Your task to perform on an android device: delete location history Image 0: 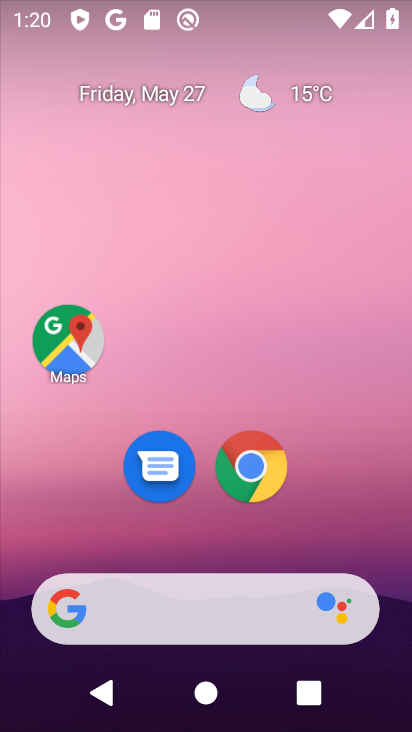
Step 0: click (268, 504)
Your task to perform on an android device: delete location history Image 1: 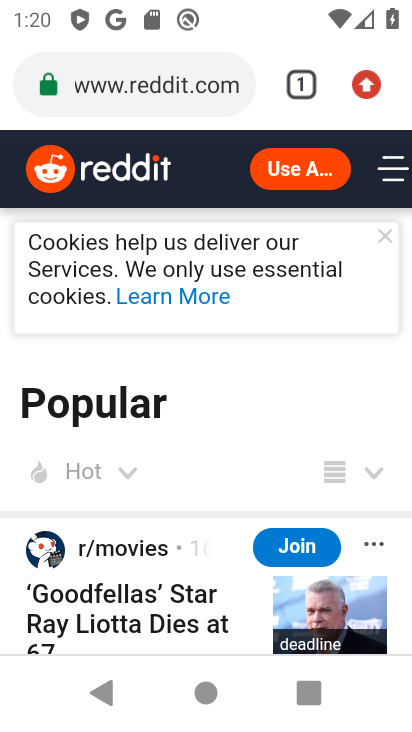
Step 1: press home button
Your task to perform on an android device: delete location history Image 2: 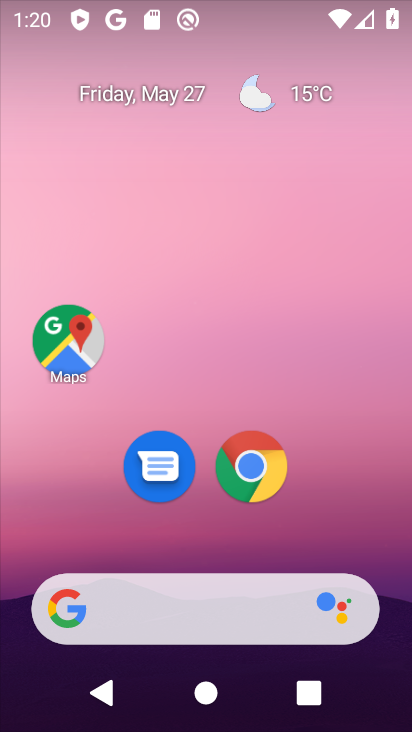
Step 2: drag from (84, 557) to (207, 75)
Your task to perform on an android device: delete location history Image 3: 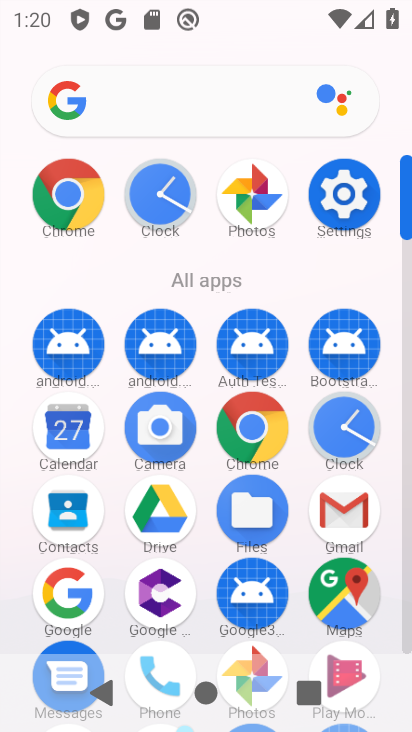
Step 3: drag from (168, 551) to (259, 319)
Your task to perform on an android device: delete location history Image 4: 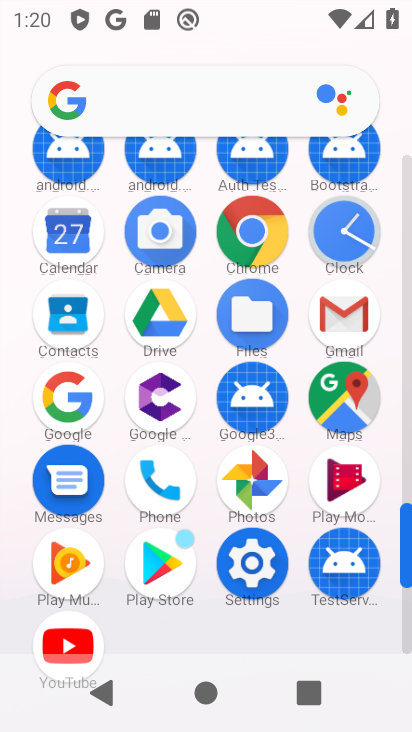
Step 4: click (253, 572)
Your task to perform on an android device: delete location history Image 5: 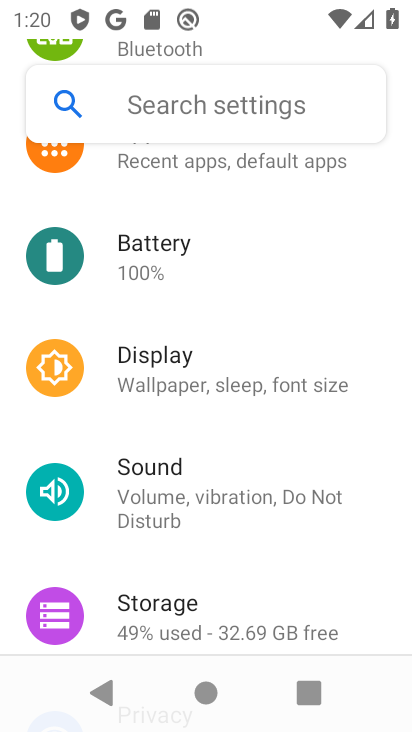
Step 5: drag from (132, 553) to (369, 137)
Your task to perform on an android device: delete location history Image 6: 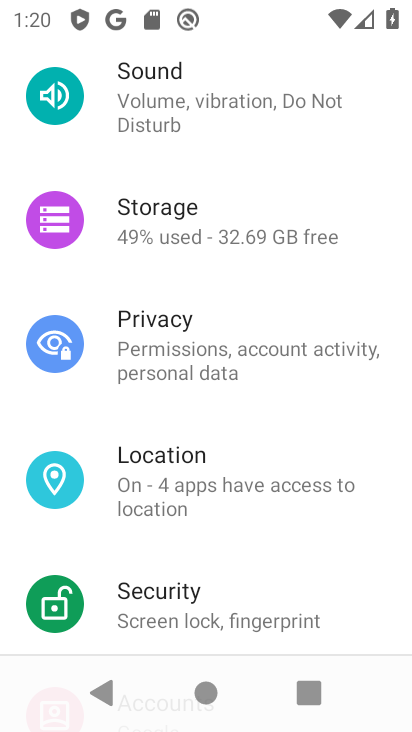
Step 6: click (193, 496)
Your task to perform on an android device: delete location history Image 7: 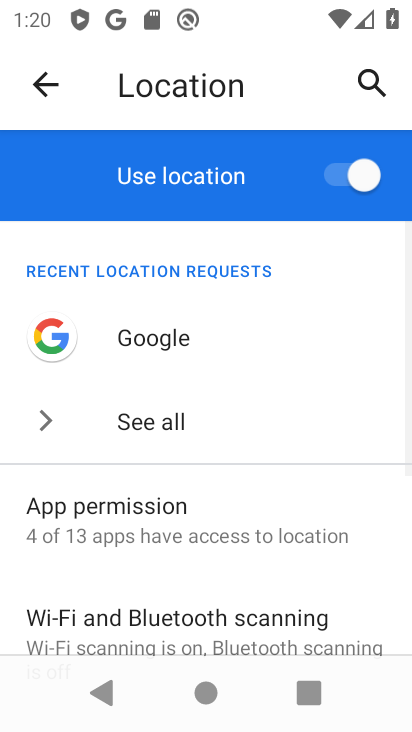
Step 7: drag from (229, 607) to (327, 314)
Your task to perform on an android device: delete location history Image 8: 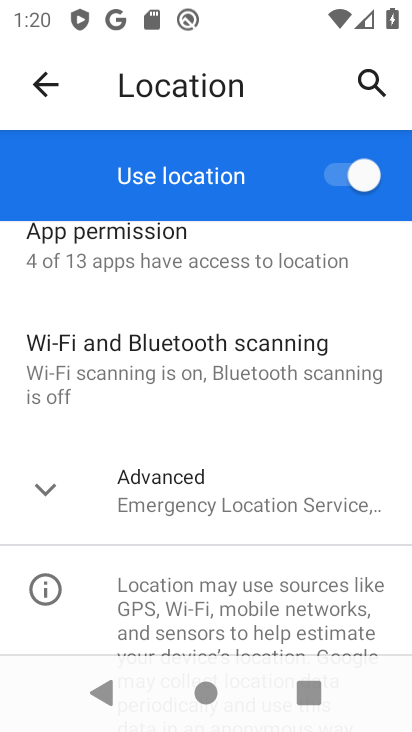
Step 8: drag from (213, 590) to (275, 402)
Your task to perform on an android device: delete location history Image 9: 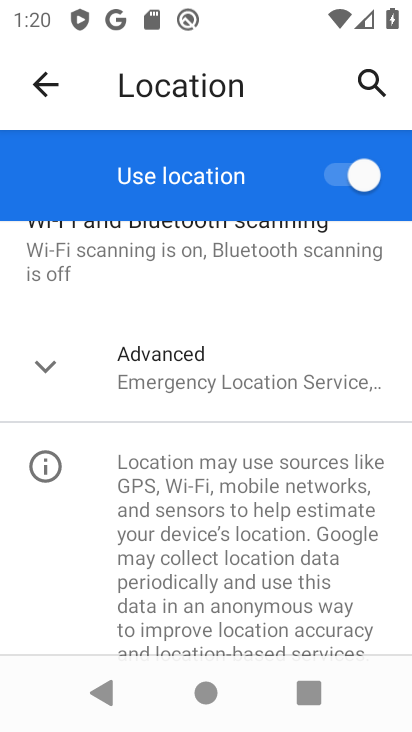
Step 9: click (255, 398)
Your task to perform on an android device: delete location history Image 10: 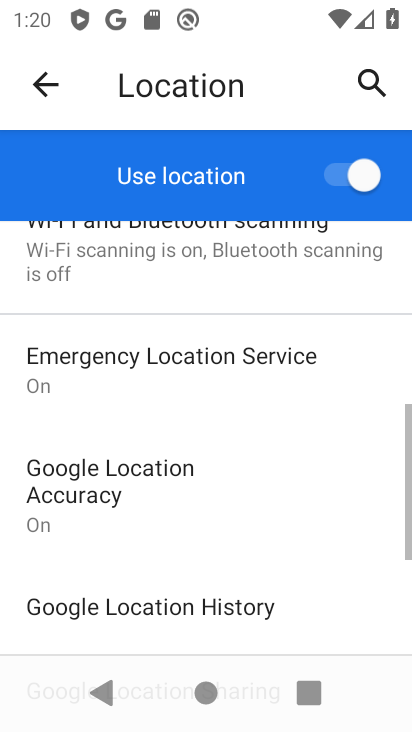
Step 10: drag from (238, 586) to (292, 414)
Your task to perform on an android device: delete location history Image 11: 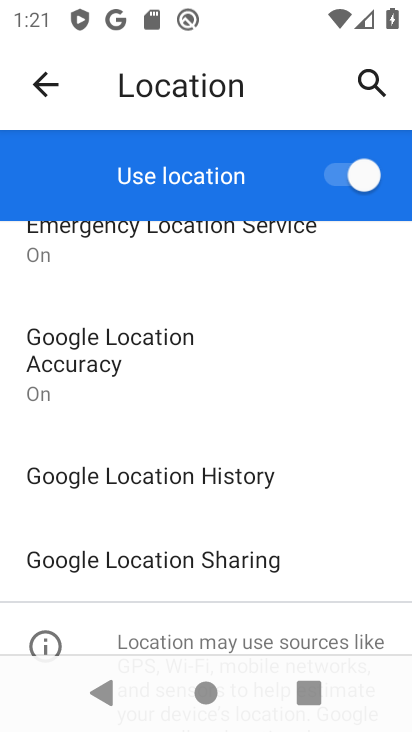
Step 11: click (231, 478)
Your task to perform on an android device: delete location history Image 12: 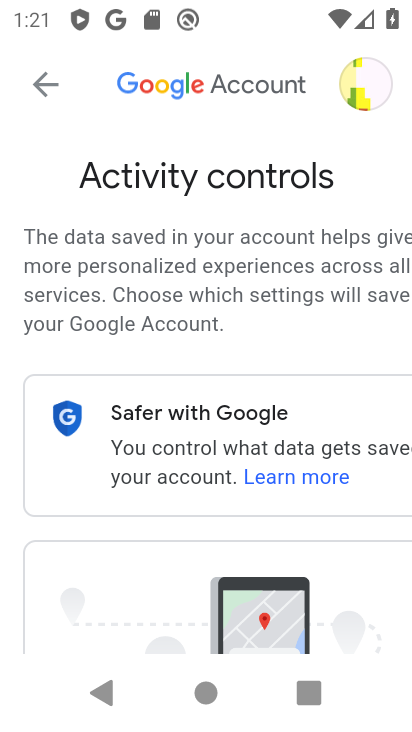
Step 12: drag from (219, 590) to (368, 271)
Your task to perform on an android device: delete location history Image 13: 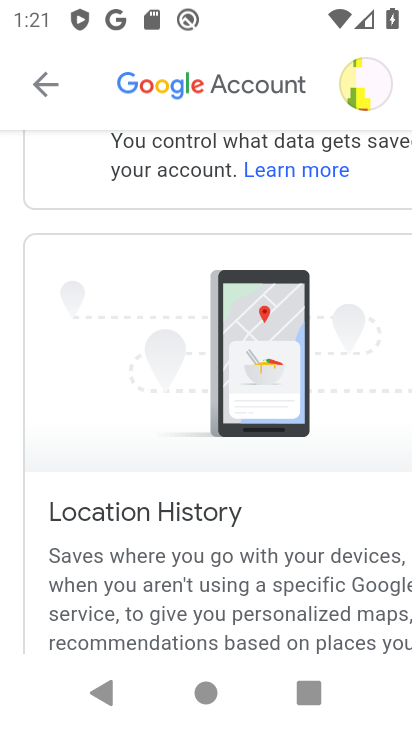
Step 13: drag from (194, 640) to (300, 241)
Your task to perform on an android device: delete location history Image 14: 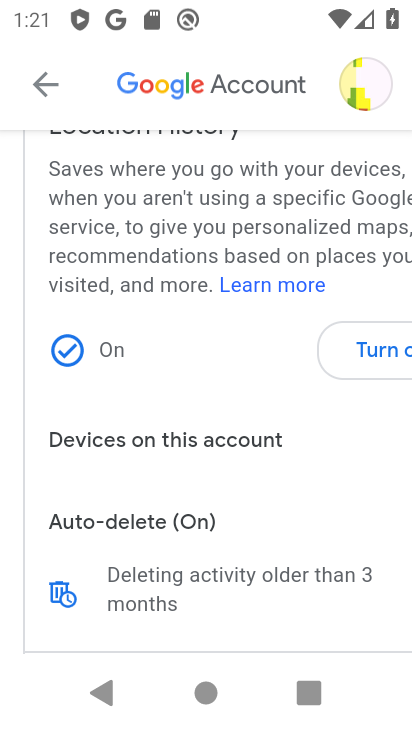
Step 14: drag from (235, 557) to (310, 329)
Your task to perform on an android device: delete location history Image 15: 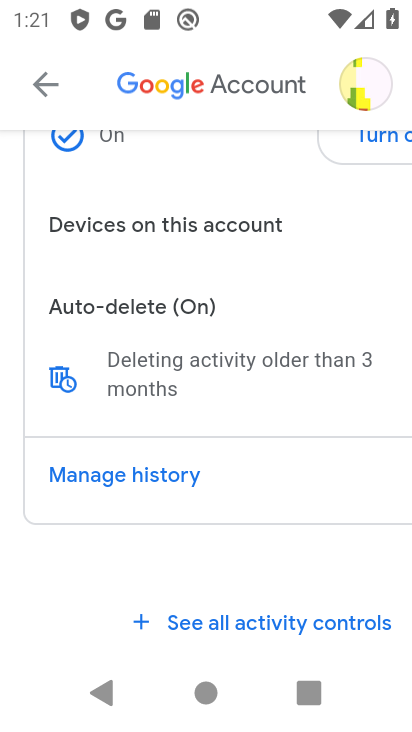
Step 15: click (186, 477)
Your task to perform on an android device: delete location history Image 16: 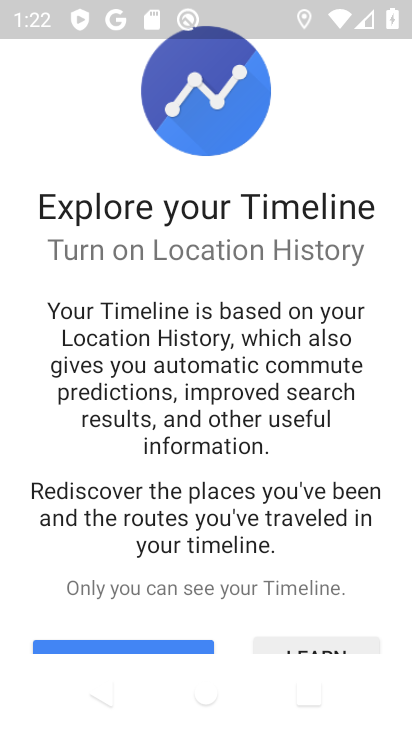
Step 16: drag from (261, 555) to (353, 247)
Your task to perform on an android device: delete location history Image 17: 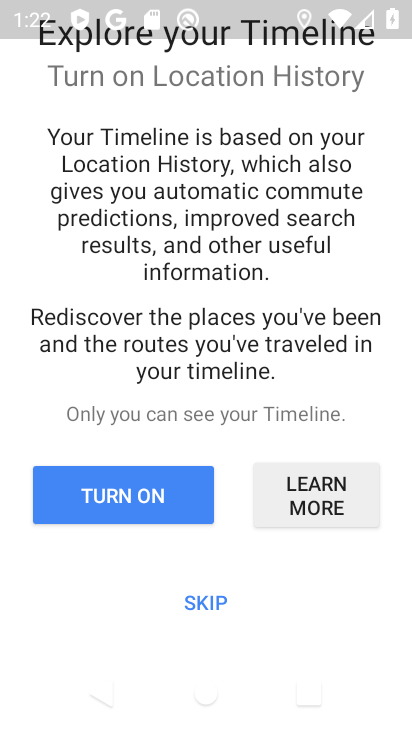
Step 17: click (215, 605)
Your task to perform on an android device: delete location history Image 18: 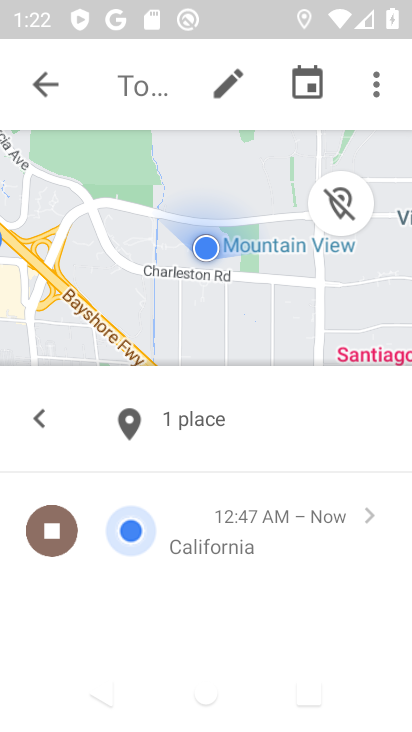
Step 18: click (406, 81)
Your task to perform on an android device: delete location history Image 19: 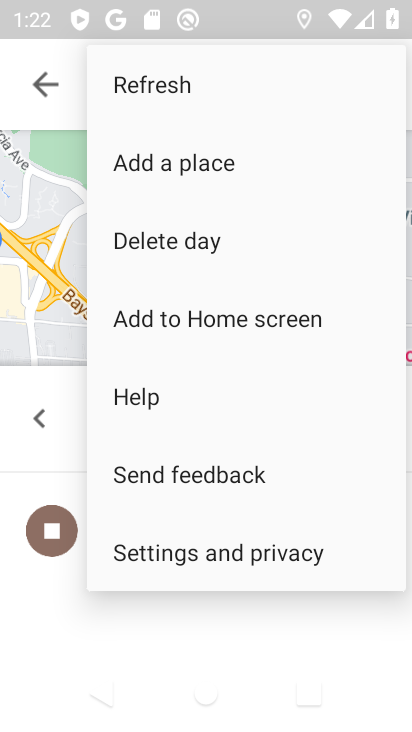
Step 19: click (278, 245)
Your task to perform on an android device: delete location history Image 20: 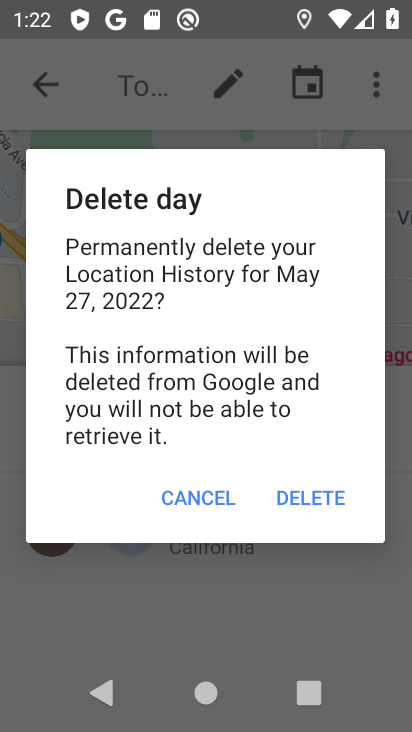
Step 20: click (310, 504)
Your task to perform on an android device: delete location history Image 21: 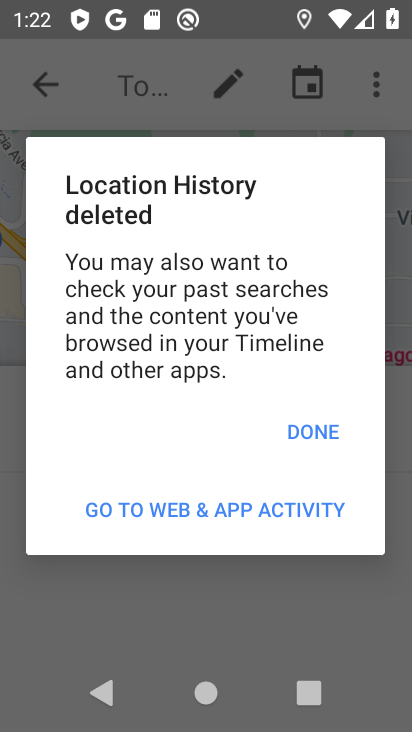
Step 21: click (317, 427)
Your task to perform on an android device: delete location history Image 22: 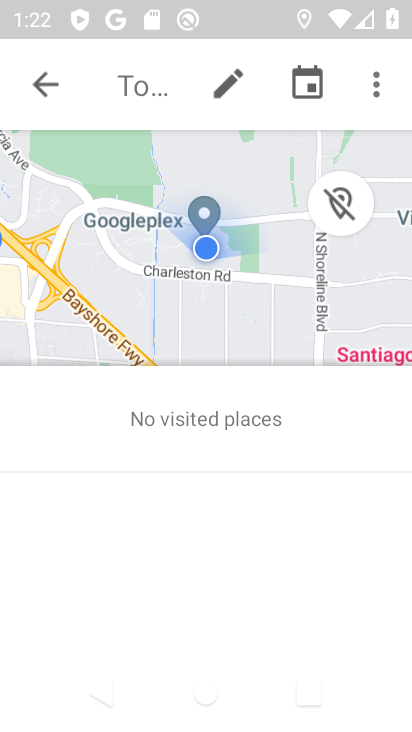
Step 22: task complete